Your task to perform on an android device: turn off data saver in the chrome app Image 0: 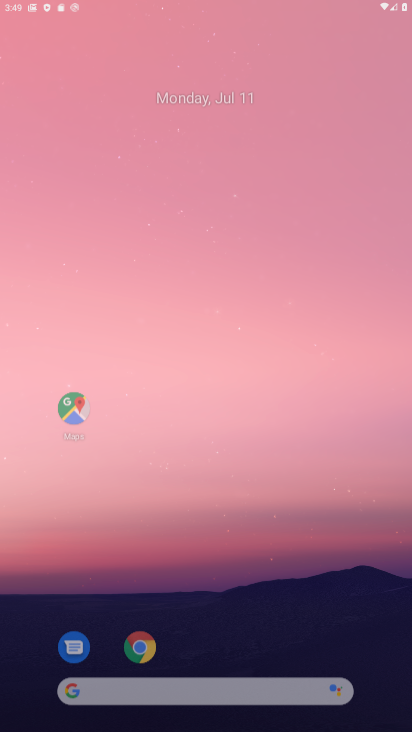
Step 0: press home button
Your task to perform on an android device: turn off data saver in the chrome app Image 1: 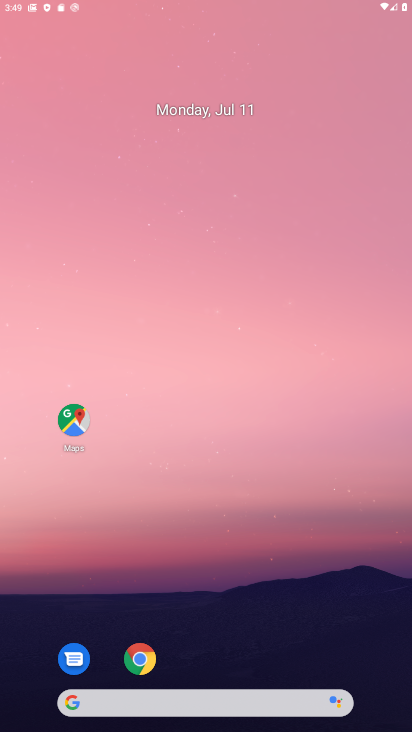
Step 1: drag from (206, 624) to (269, 336)
Your task to perform on an android device: turn off data saver in the chrome app Image 2: 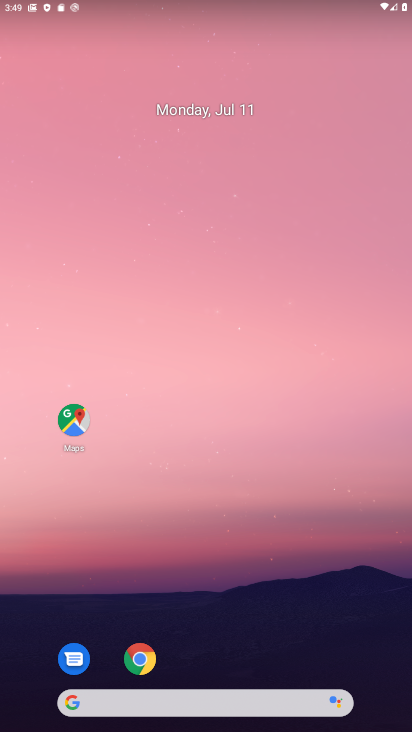
Step 2: click (153, 653)
Your task to perform on an android device: turn off data saver in the chrome app Image 3: 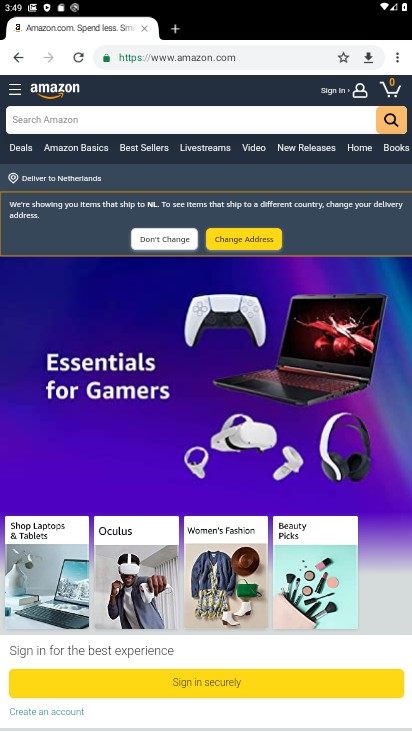
Step 3: click (399, 65)
Your task to perform on an android device: turn off data saver in the chrome app Image 4: 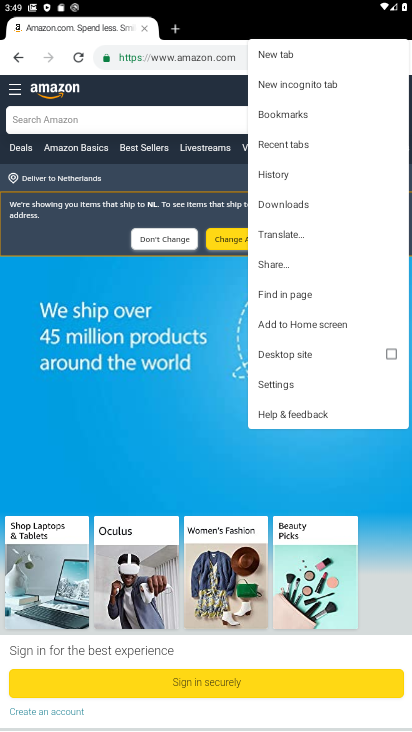
Step 4: click (277, 378)
Your task to perform on an android device: turn off data saver in the chrome app Image 5: 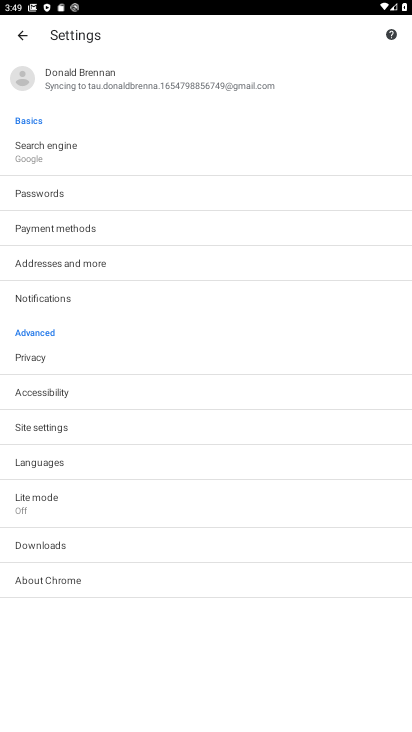
Step 5: click (59, 498)
Your task to perform on an android device: turn off data saver in the chrome app Image 6: 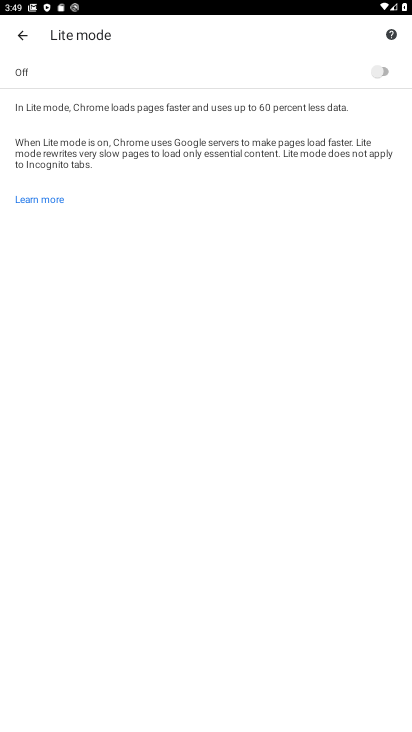
Step 6: task complete